Your task to perform on an android device: Turn off the flashlight Image 0: 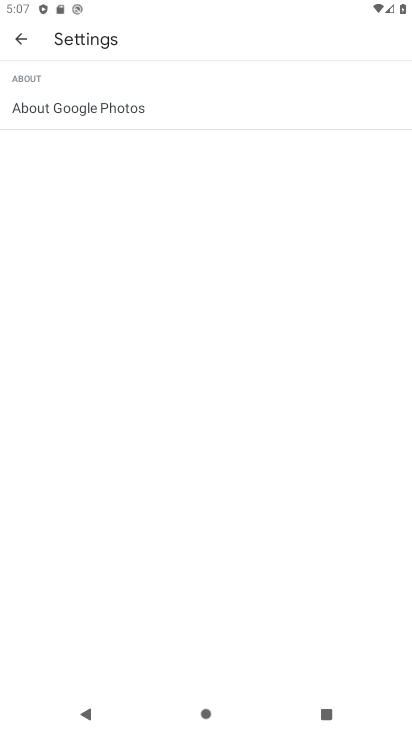
Step 0: press home button
Your task to perform on an android device: Turn off the flashlight Image 1: 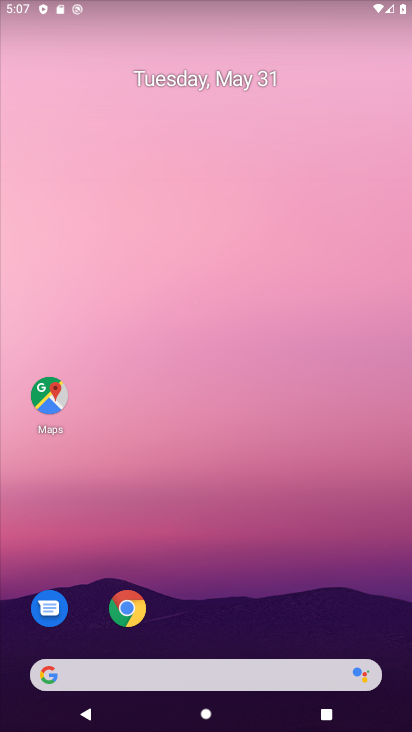
Step 1: drag from (231, 602) to (212, 34)
Your task to perform on an android device: Turn off the flashlight Image 2: 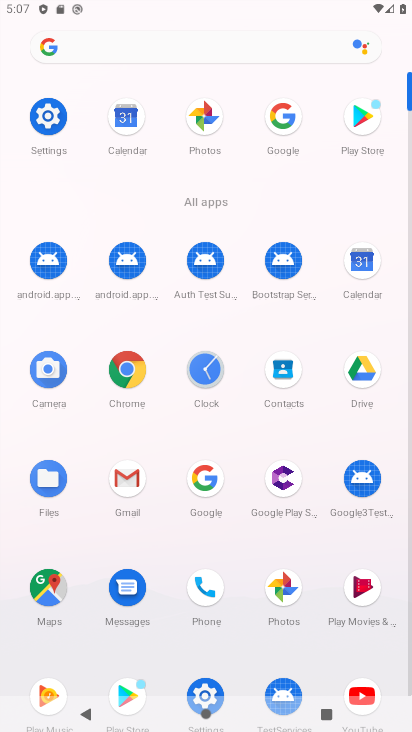
Step 2: click (51, 121)
Your task to perform on an android device: Turn off the flashlight Image 3: 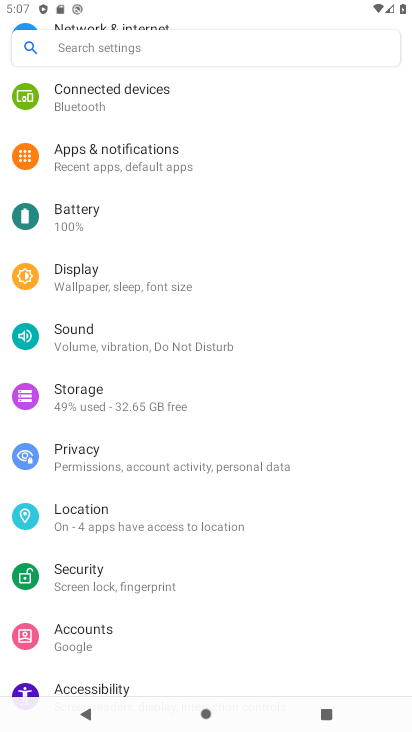
Step 3: drag from (114, 496) to (135, 400)
Your task to perform on an android device: Turn off the flashlight Image 4: 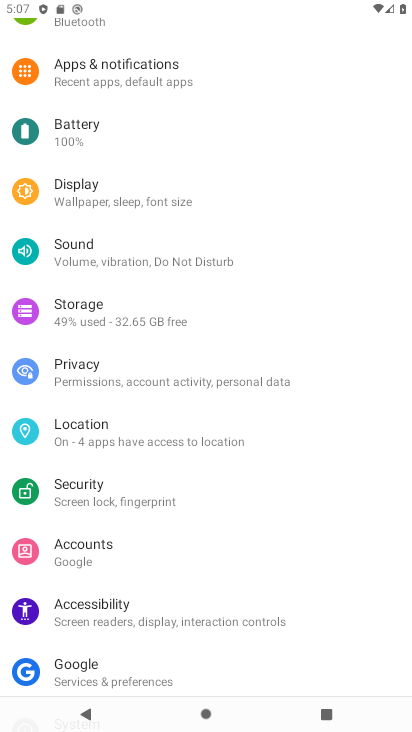
Step 4: drag from (130, 502) to (174, 408)
Your task to perform on an android device: Turn off the flashlight Image 5: 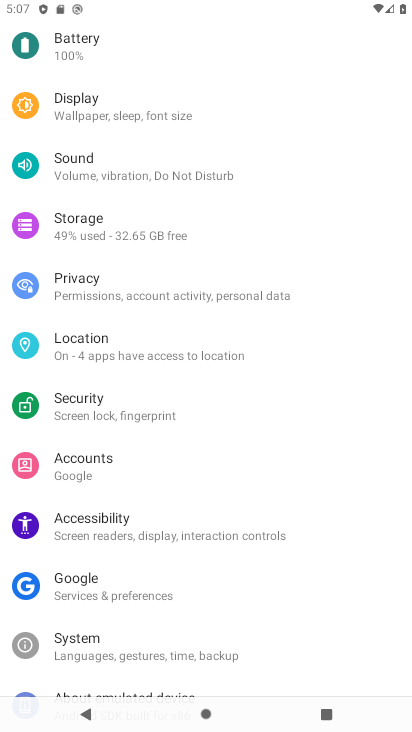
Step 5: drag from (161, 492) to (189, 425)
Your task to perform on an android device: Turn off the flashlight Image 6: 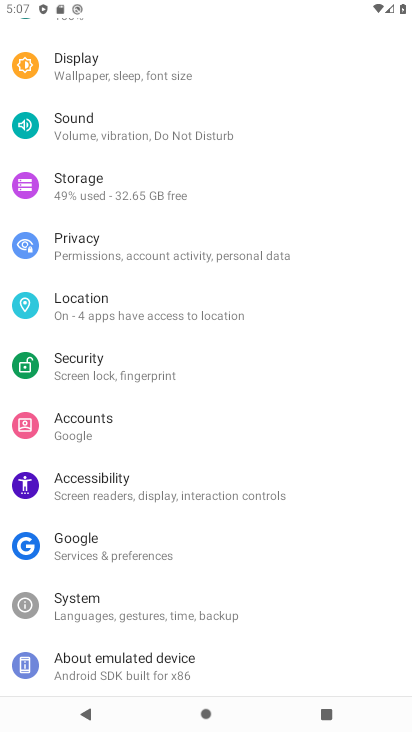
Step 6: drag from (128, 507) to (173, 363)
Your task to perform on an android device: Turn off the flashlight Image 7: 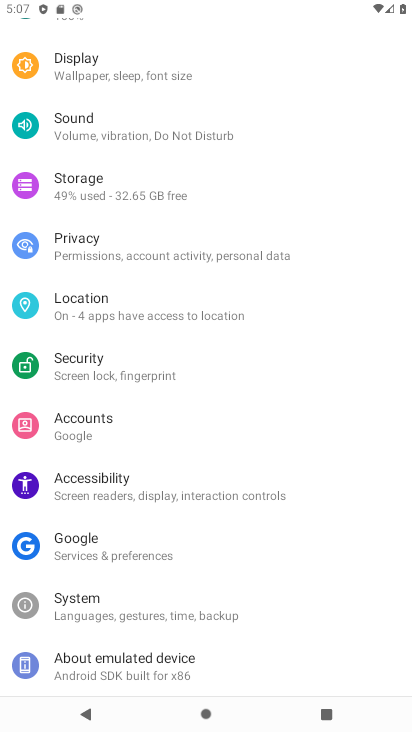
Step 7: click (132, 489)
Your task to perform on an android device: Turn off the flashlight Image 8: 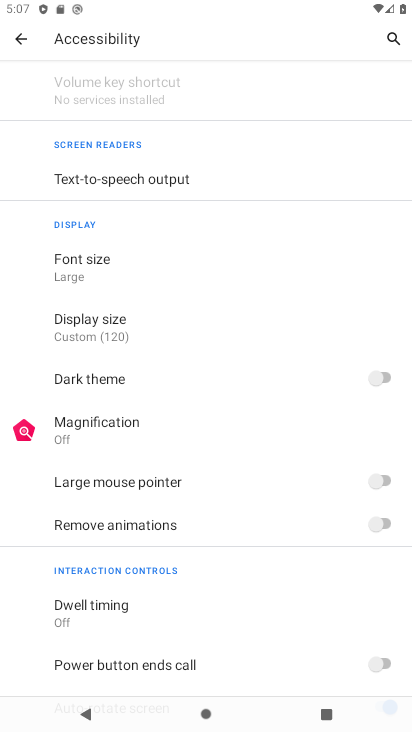
Step 8: task complete